Your task to perform on an android device: turn notification dots on Image 0: 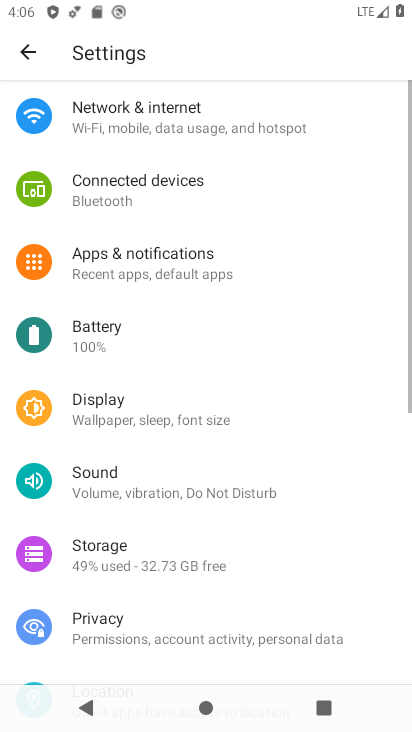
Step 0: click (192, 281)
Your task to perform on an android device: turn notification dots on Image 1: 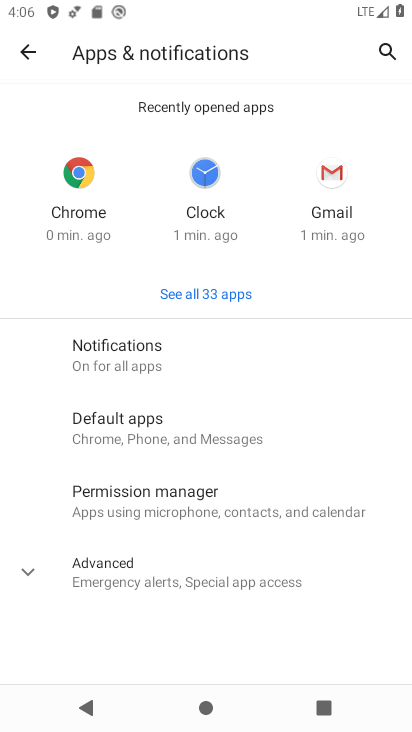
Step 1: click (217, 580)
Your task to perform on an android device: turn notification dots on Image 2: 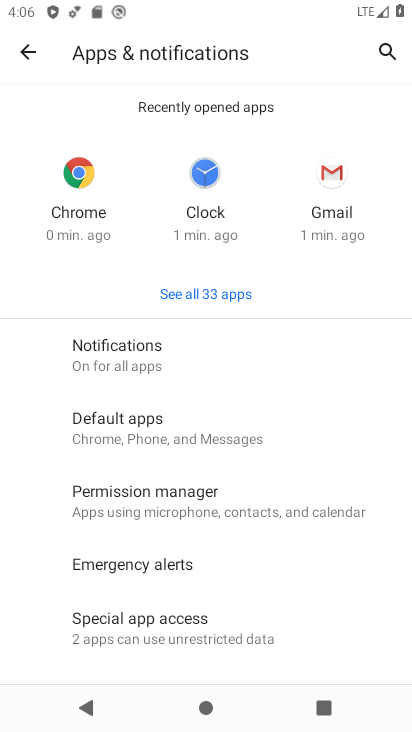
Step 2: drag from (312, 620) to (321, 183)
Your task to perform on an android device: turn notification dots on Image 3: 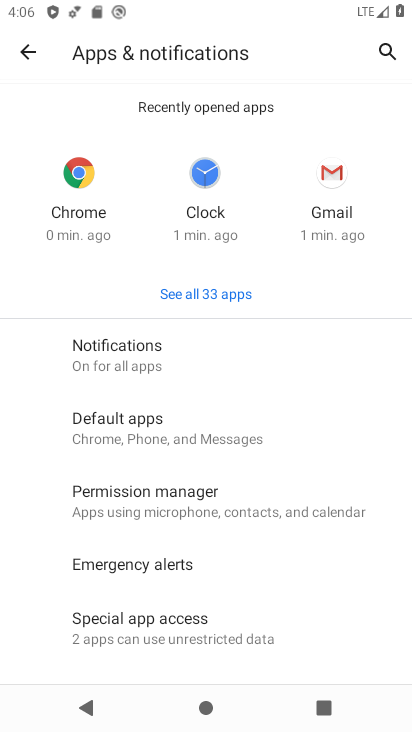
Step 3: drag from (207, 622) to (250, 158)
Your task to perform on an android device: turn notification dots on Image 4: 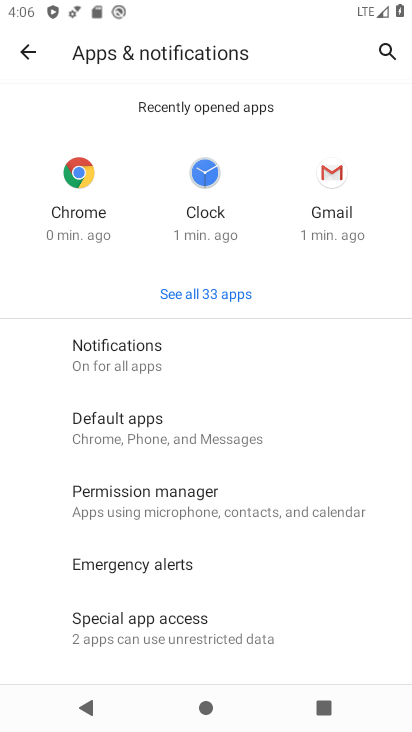
Step 4: click (222, 373)
Your task to perform on an android device: turn notification dots on Image 5: 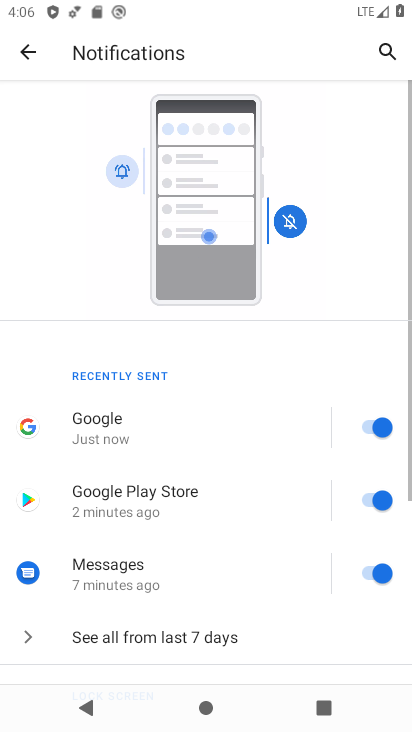
Step 5: drag from (253, 590) to (266, 140)
Your task to perform on an android device: turn notification dots on Image 6: 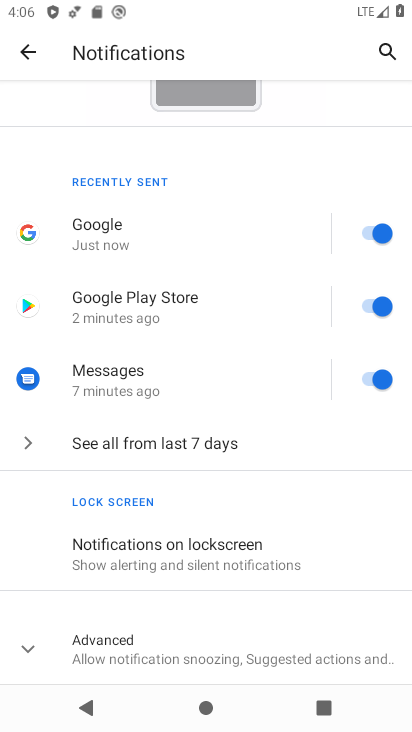
Step 6: click (203, 643)
Your task to perform on an android device: turn notification dots on Image 7: 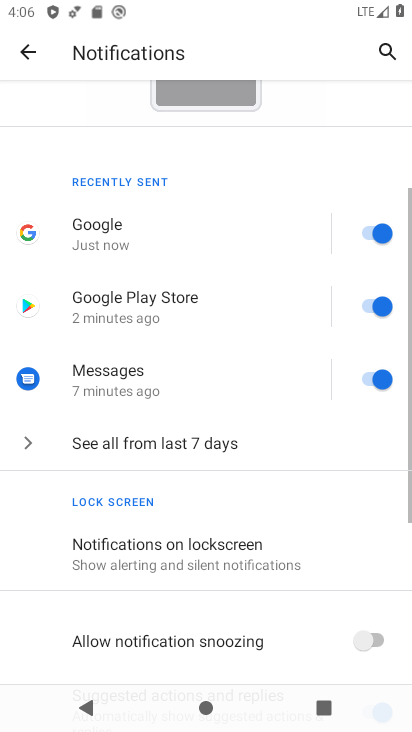
Step 7: drag from (286, 606) to (325, 189)
Your task to perform on an android device: turn notification dots on Image 8: 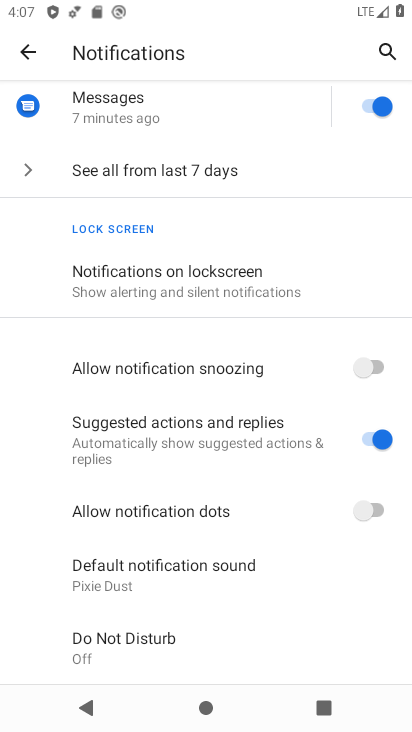
Step 8: click (373, 515)
Your task to perform on an android device: turn notification dots on Image 9: 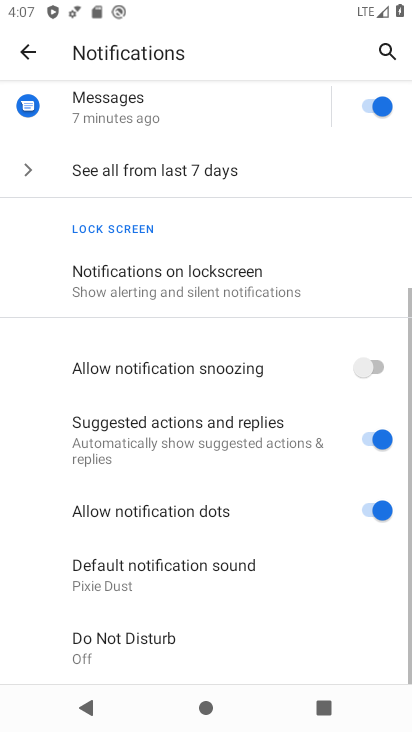
Step 9: task complete